Your task to perform on an android device: Open calendar and show me the first week of next month Image 0: 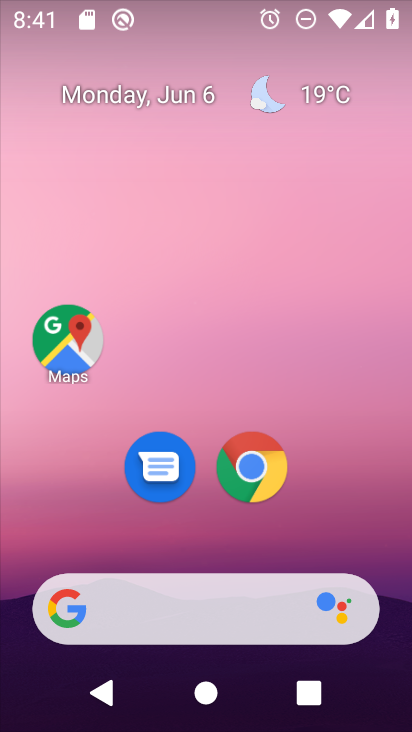
Step 0: drag from (367, 529) to (388, 191)
Your task to perform on an android device: Open calendar and show me the first week of next month Image 1: 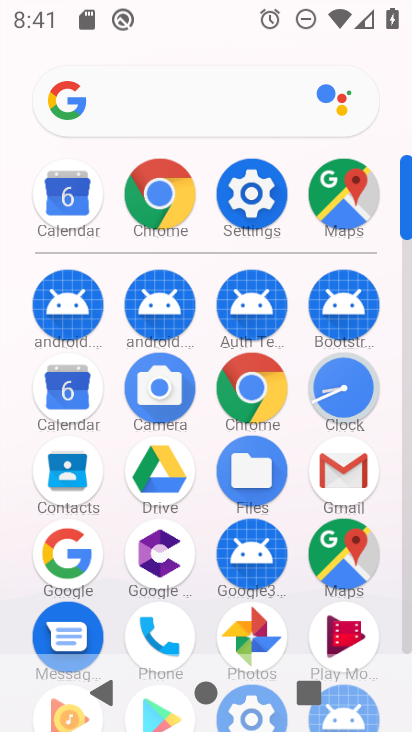
Step 1: click (82, 402)
Your task to perform on an android device: Open calendar and show me the first week of next month Image 2: 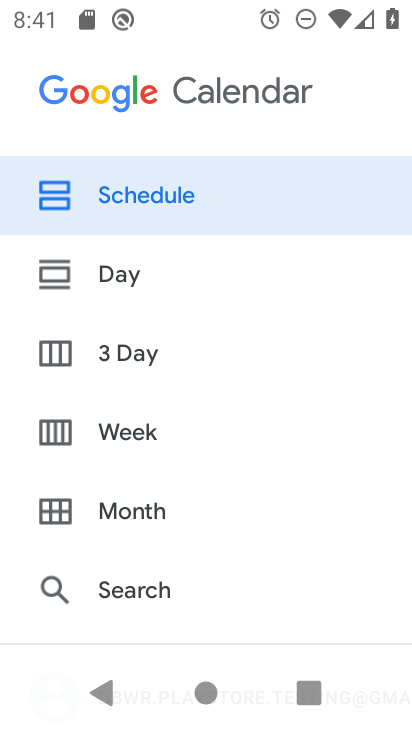
Step 2: press back button
Your task to perform on an android device: Open calendar and show me the first week of next month Image 3: 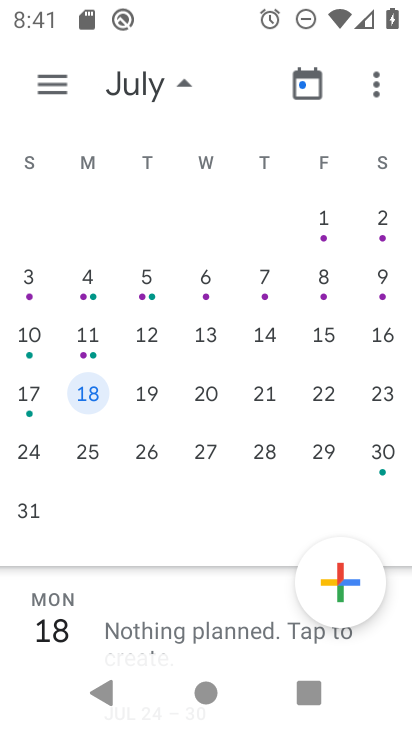
Step 3: click (81, 344)
Your task to perform on an android device: Open calendar and show me the first week of next month Image 4: 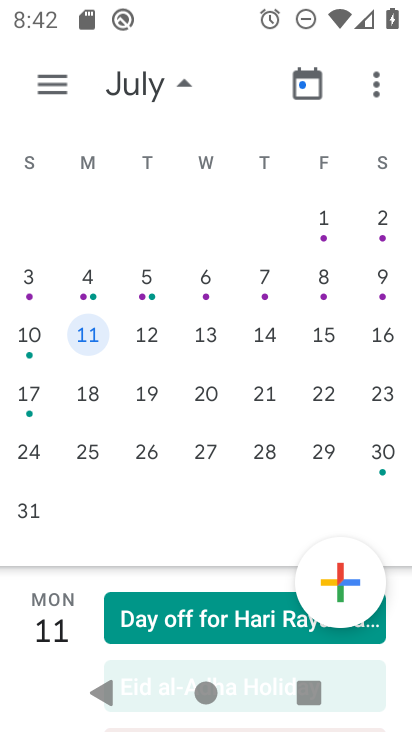
Step 4: task complete